Your task to perform on an android device: Open sound settings Image 0: 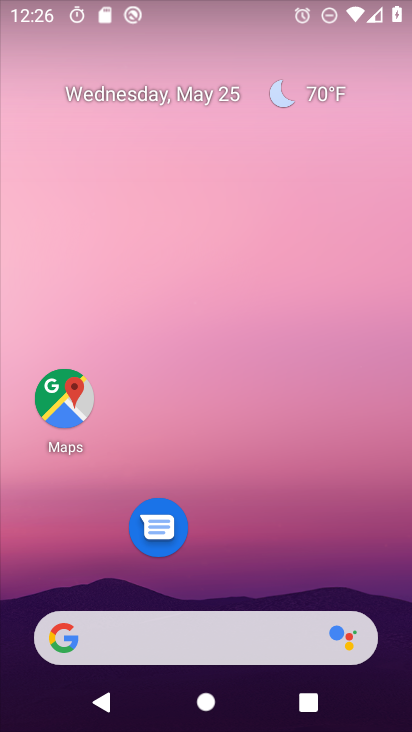
Step 0: drag from (241, 588) to (253, 120)
Your task to perform on an android device: Open sound settings Image 1: 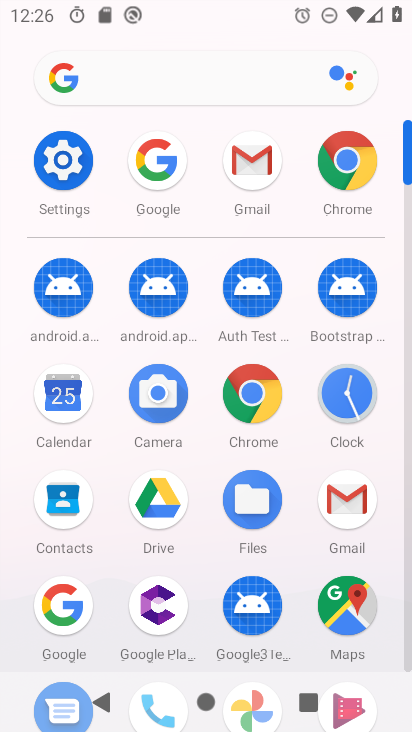
Step 1: click (64, 155)
Your task to perform on an android device: Open sound settings Image 2: 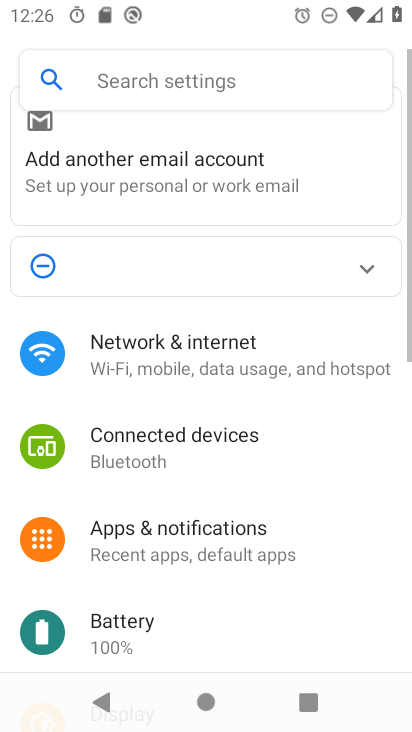
Step 2: drag from (202, 614) to (192, 90)
Your task to perform on an android device: Open sound settings Image 3: 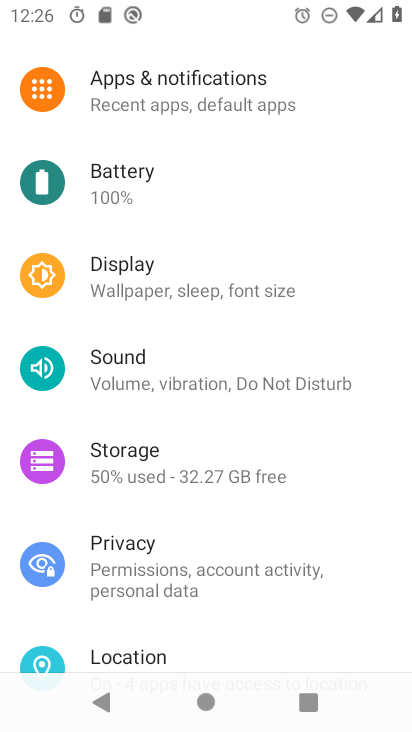
Step 3: click (137, 372)
Your task to perform on an android device: Open sound settings Image 4: 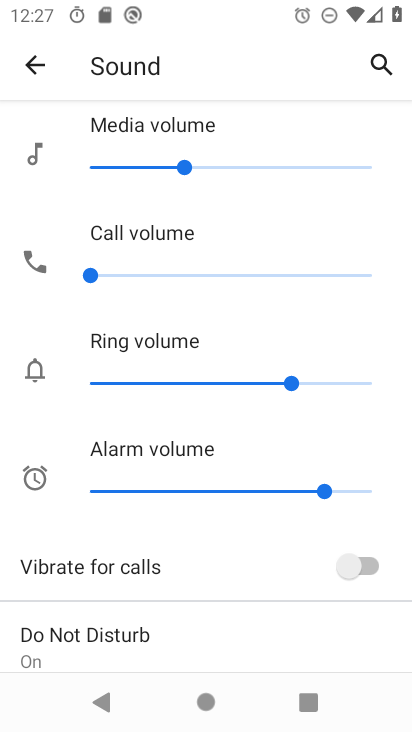
Step 4: task complete